Your task to perform on an android device: What's the weather? Image 0: 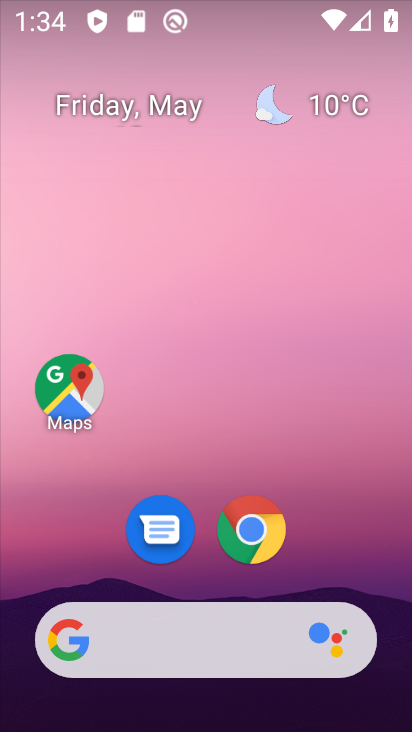
Step 0: click (334, 113)
Your task to perform on an android device: What's the weather? Image 1: 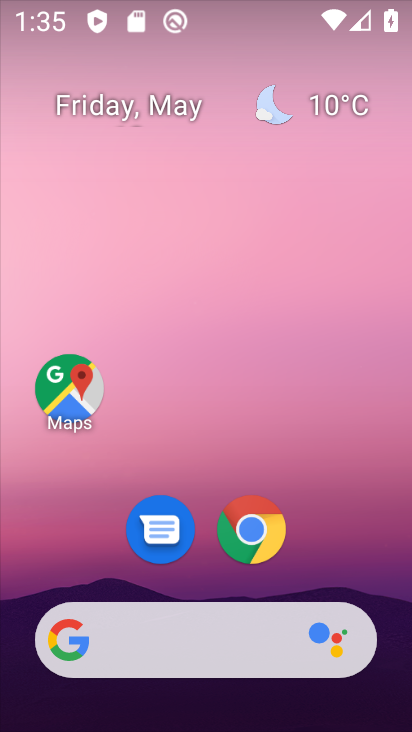
Step 1: click (358, 124)
Your task to perform on an android device: What's the weather? Image 2: 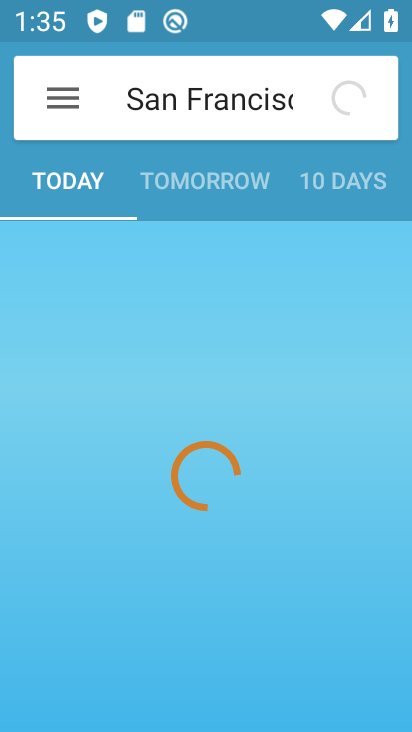
Step 2: click (344, 99)
Your task to perform on an android device: What's the weather? Image 3: 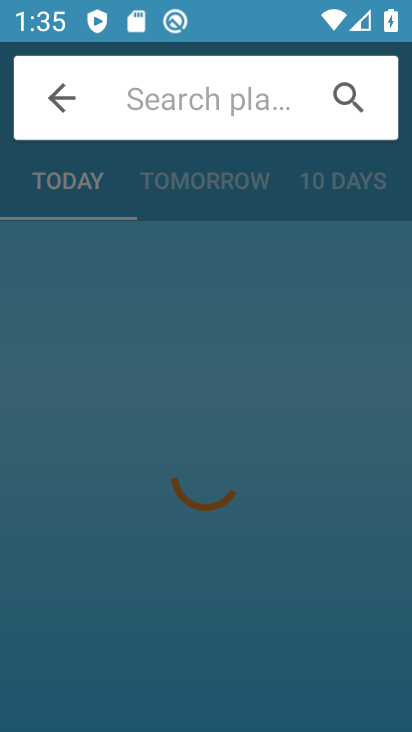
Step 3: click (195, 205)
Your task to perform on an android device: What's the weather? Image 4: 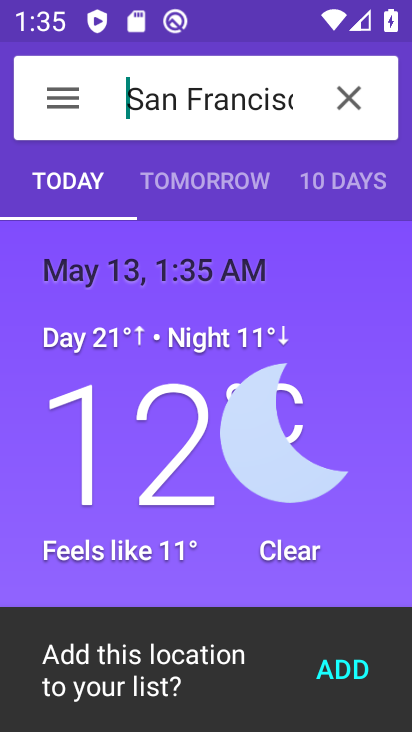
Step 4: task complete